Your task to perform on an android device: add a contact Image 0: 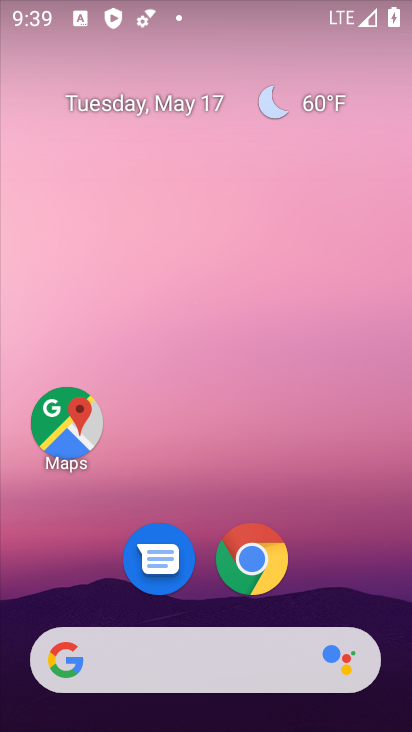
Step 0: drag from (194, 586) to (199, 251)
Your task to perform on an android device: add a contact Image 1: 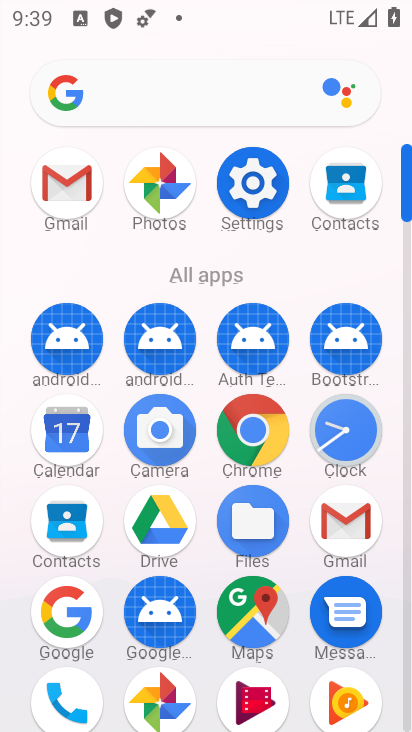
Step 1: drag from (121, 552) to (142, 360)
Your task to perform on an android device: add a contact Image 2: 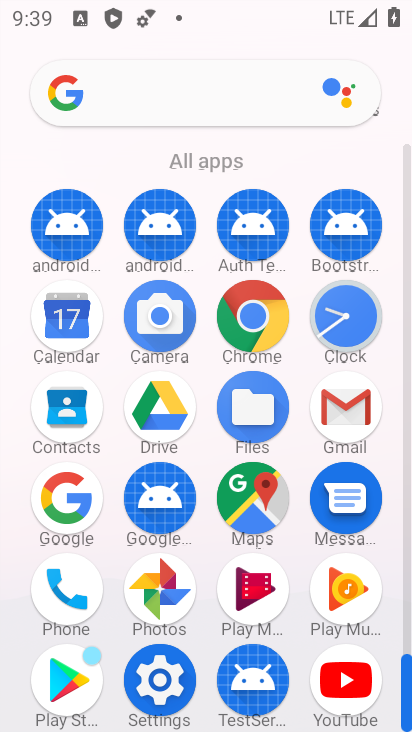
Step 2: click (72, 427)
Your task to perform on an android device: add a contact Image 3: 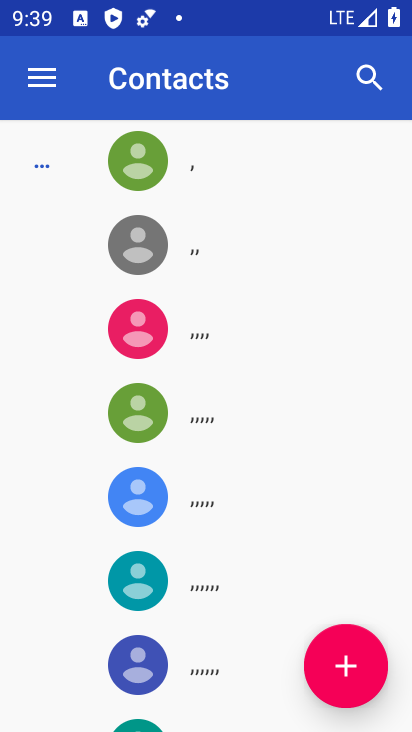
Step 3: click (322, 689)
Your task to perform on an android device: add a contact Image 4: 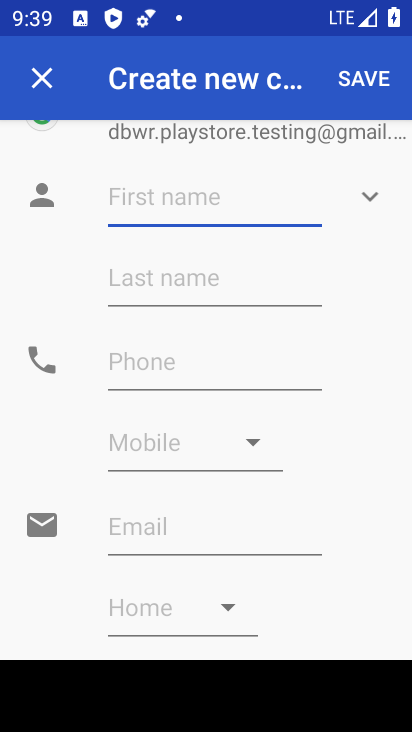
Step 4: type "dhetht"
Your task to perform on an android device: add a contact Image 5: 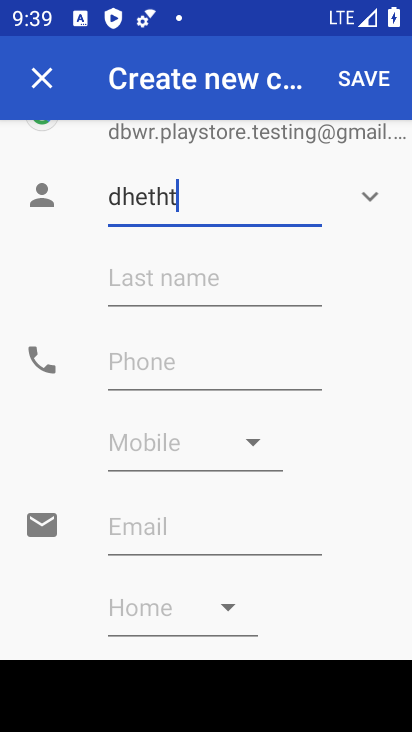
Step 5: click (147, 368)
Your task to perform on an android device: add a contact Image 6: 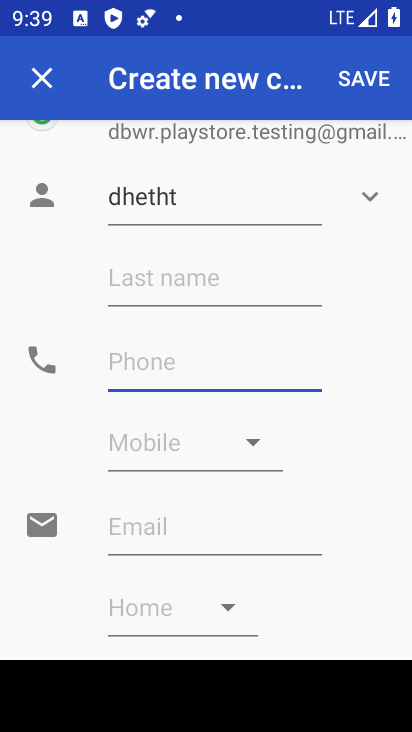
Step 6: type "865486858"
Your task to perform on an android device: add a contact Image 7: 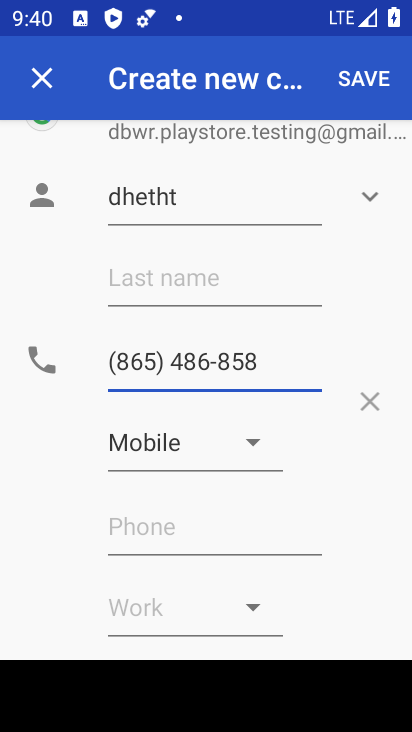
Step 7: click (366, 78)
Your task to perform on an android device: add a contact Image 8: 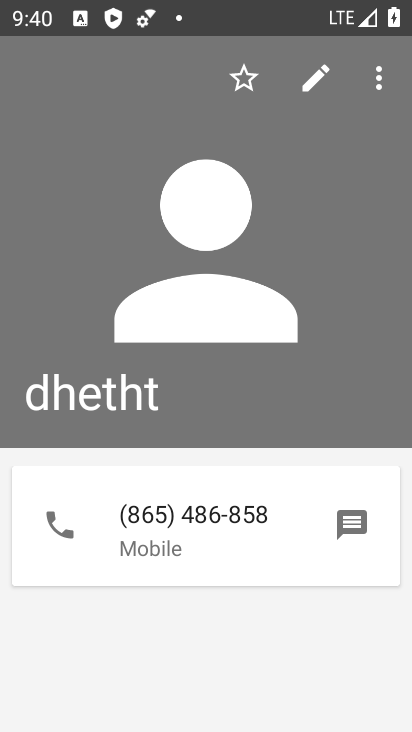
Step 8: task complete